Your task to perform on an android device: open a bookmark in the chrome app Image 0: 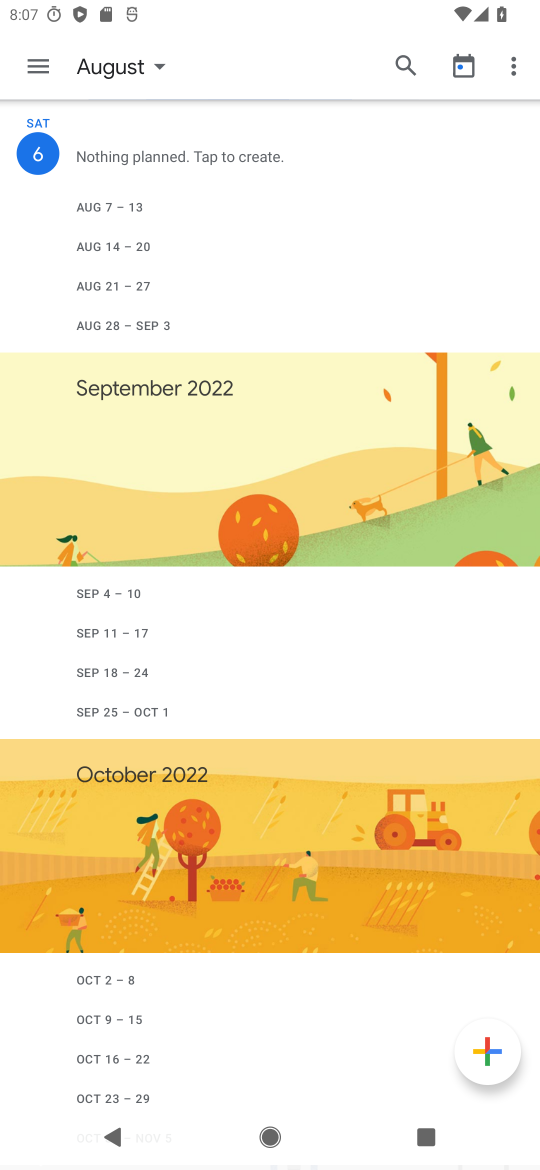
Step 0: press home button
Your task to perform on an android device: open a bookmark in the chrome app Image 1: 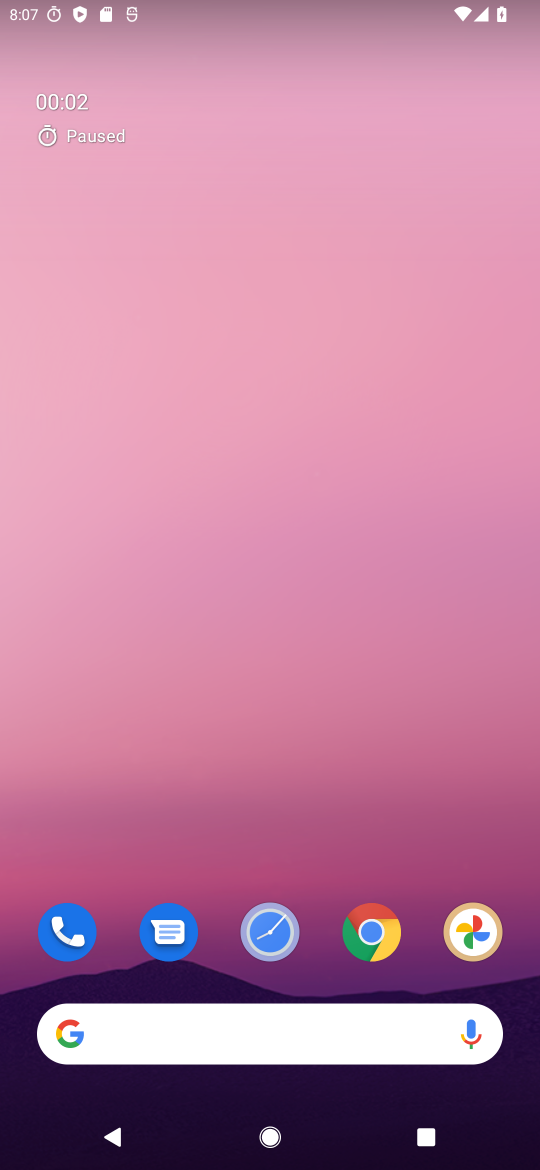
Step 1: click (377, 920)
Your task to perform on an android device: open a bookmark in the chrome app Image 2: 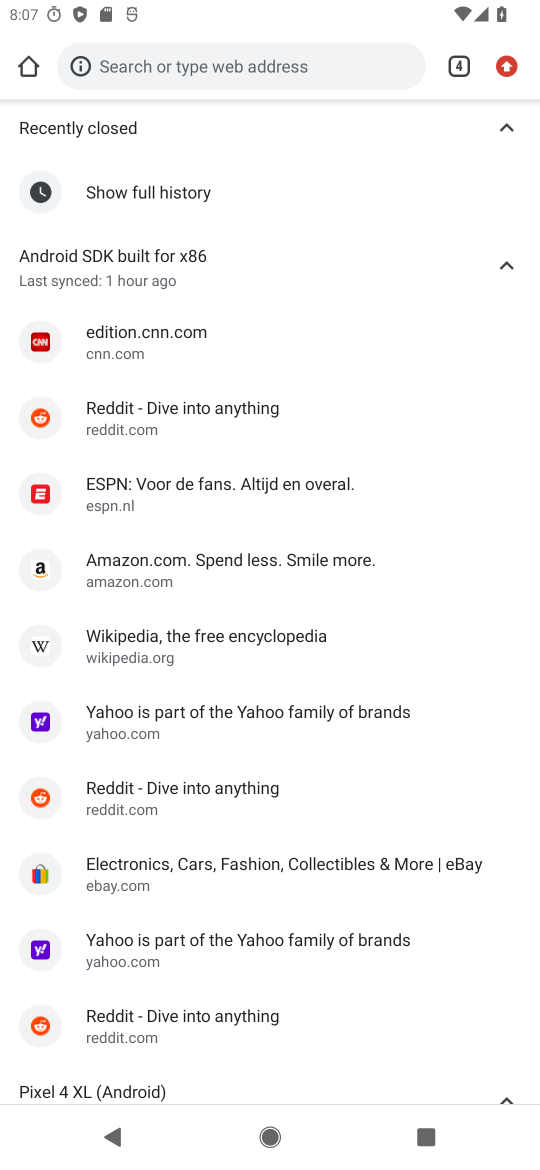
Step 2: task complete